Your task to perform on an android device: Open Google Image 0: 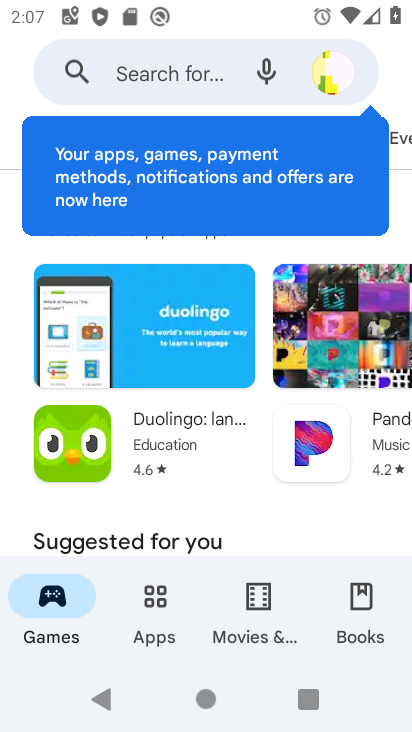
Step 0: press home button
Your task to perform on an android device: Open Google Image 1: 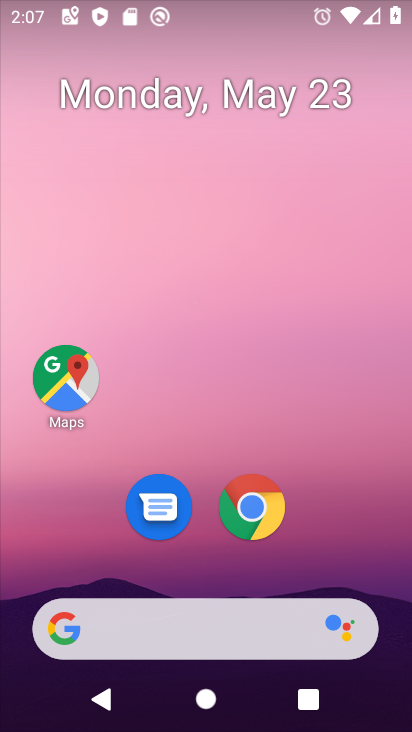
Step 1: drag from (226, 719) to (190, 251)
Your task to perform on an android device: Open Google Image 2: 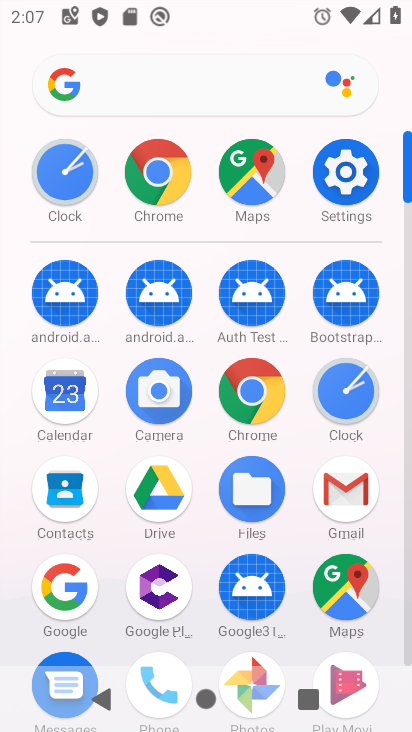
Step 2: click (76, 584)
Your task to perform on an android device: Open Google Image 3: 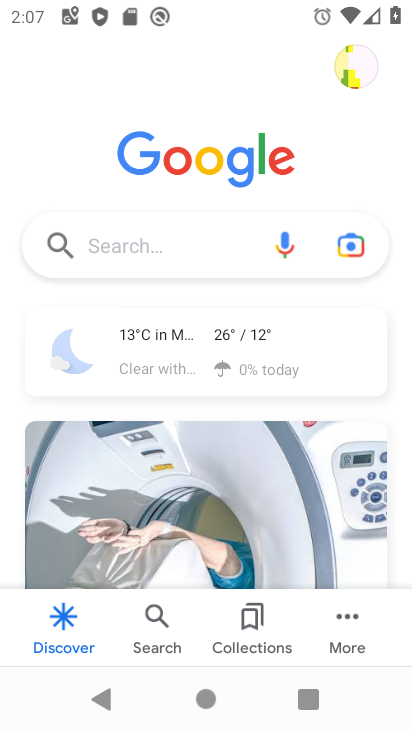
Step 3: task complete